Your task to perform on an android device: turn on airplane mode Image 0: 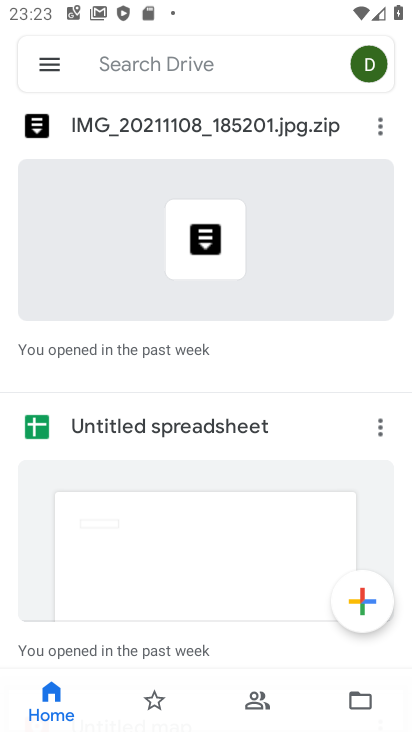
Step 0: press home button
Your task to perform on an android device: turn on airplane mode Image 1: 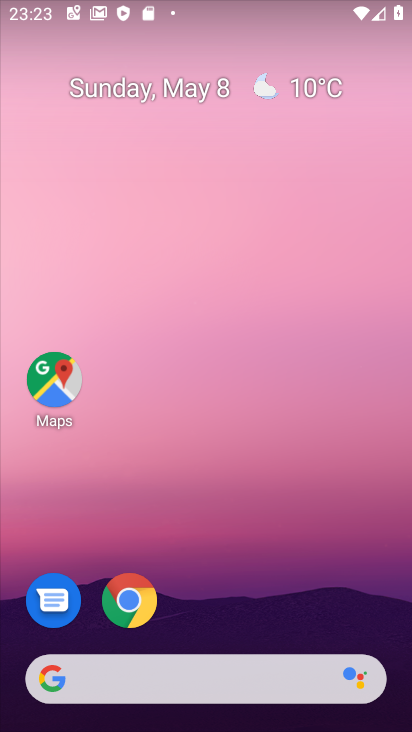
Step 1: drag from (224, 9) to (209, 569)
Your task to perform on an android device: turn on airplane mode Image 2: 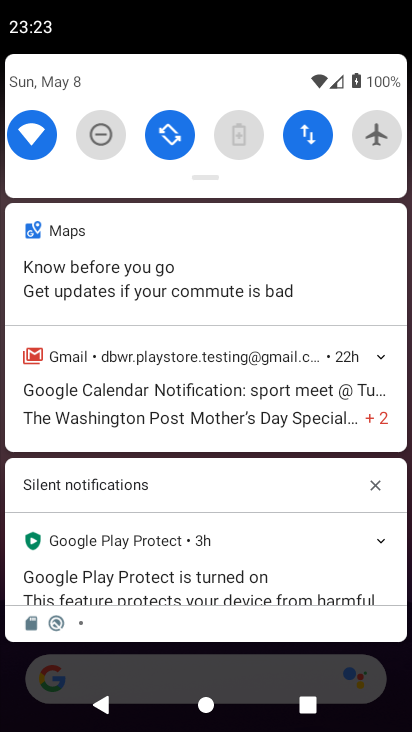
Step 2: drag from (189, 90) to (252, 570)
Your task to perform on an android device: turn on airplane mode Image 3: 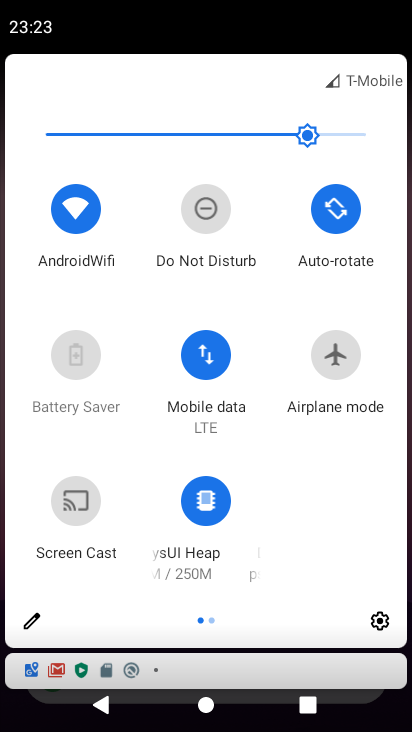
Step 3: click (329, 367)
Your task to perform on an android device: turn on airplane mode Image 4: 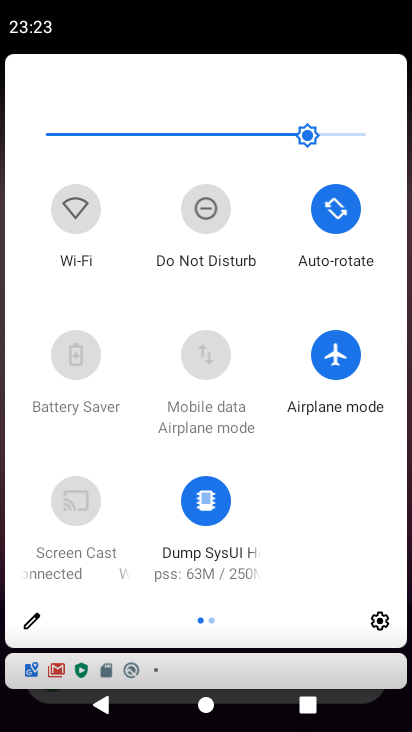
Step 4: task complete